Your task to perform on an android device: turn on wifi Image 0: 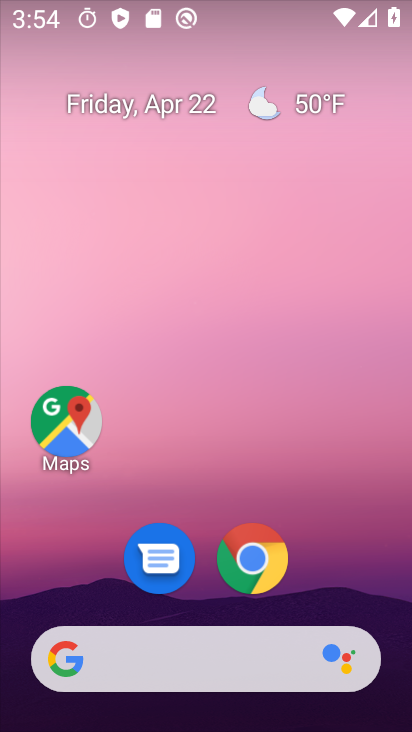
Step 0: click (367, 205)
Your task to perform on an android device: turn on wifi Image 1: 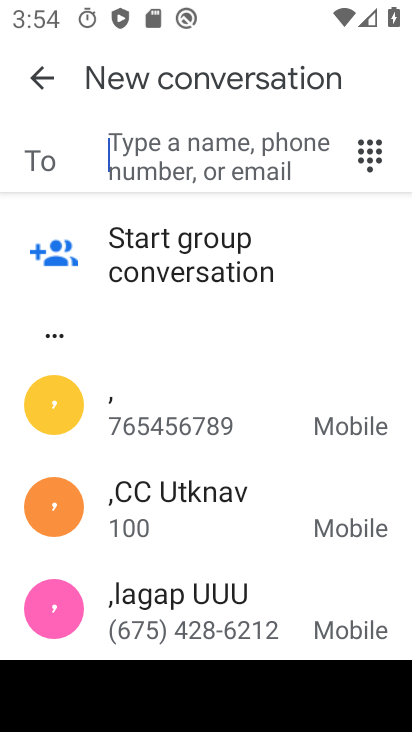
Step 1: press home button
Your task to perform on an android device: turn on wifi Image 2: 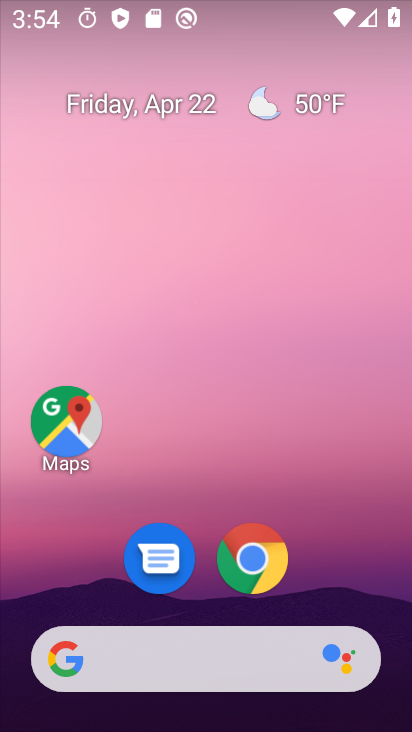
Step 2: drag from (345, 572) to (301, 124)
Your task to perform on an android device: turn on wifi Image 3: 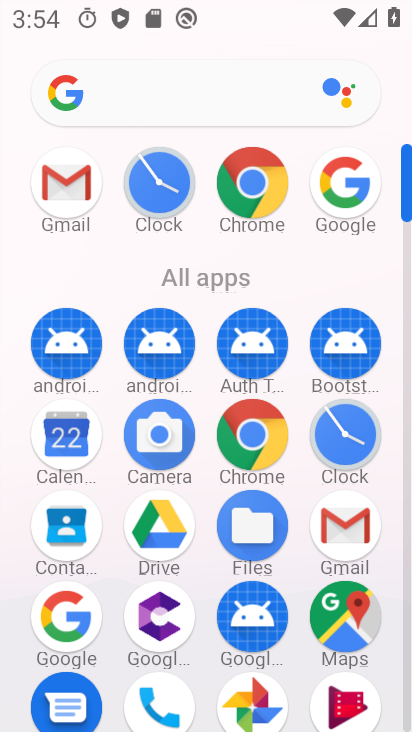
Step 3: drag from (235, 537) to (237, 207)
Your task to perform on an android device: turn on wifi Image 4: 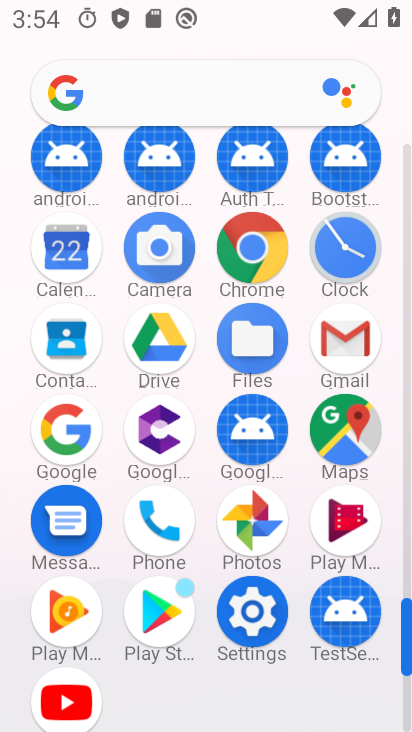
Step 4: click (258, 610)
Your task to perform on an android device: turn on wifi Image 5: 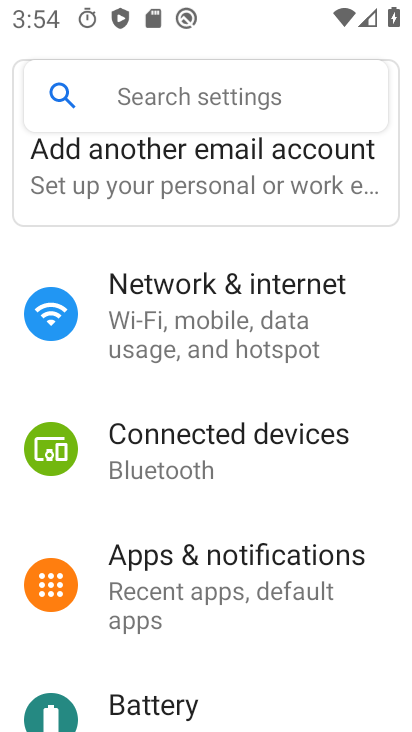
Step 5: click (161, 327)
Your task to perform on an android device: turn on wifi Image 6: 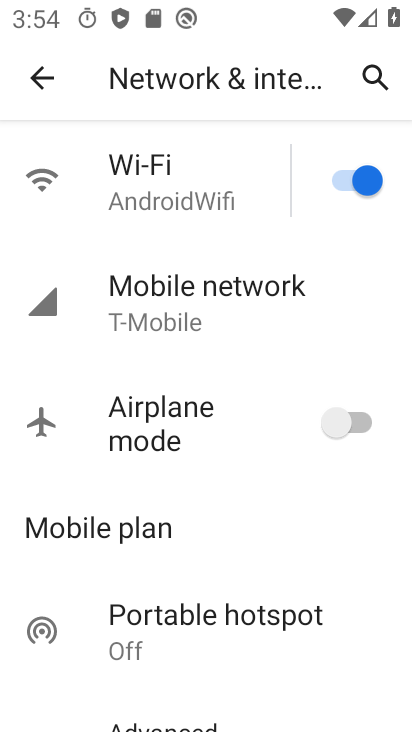
Step 6: task complete